Your task to perform on an android device: Is it going to rain tomorrow? Image 0: 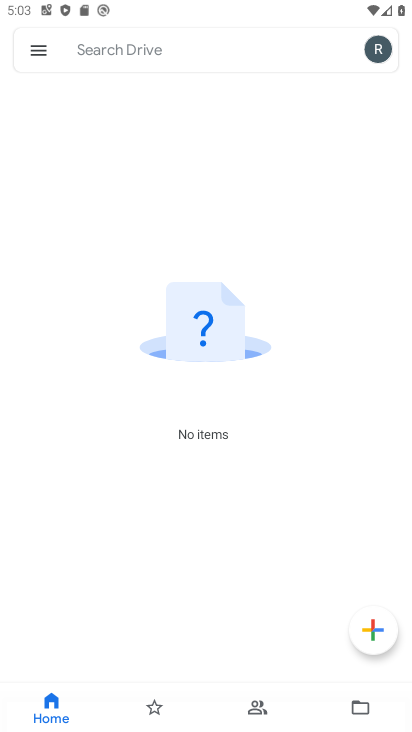
Step 0: press home button
Your task to perform on an android device: Is it going to rain tomorrow? Image 1: 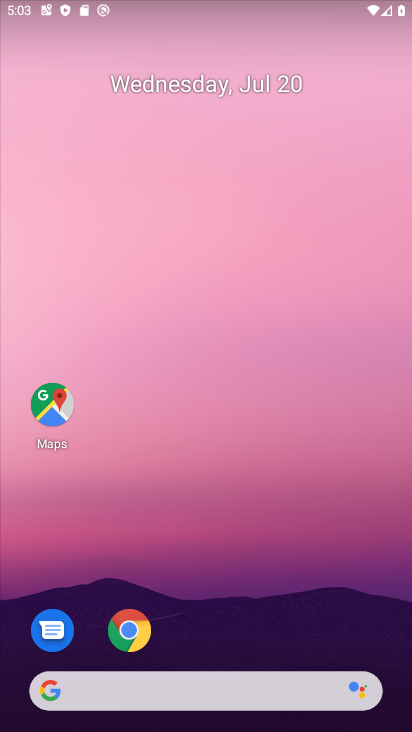
Step 1: drag from (227, 584) to (326, 50)
Your task to perform on an android device: Is it going to rain tomorrow? Image 2: 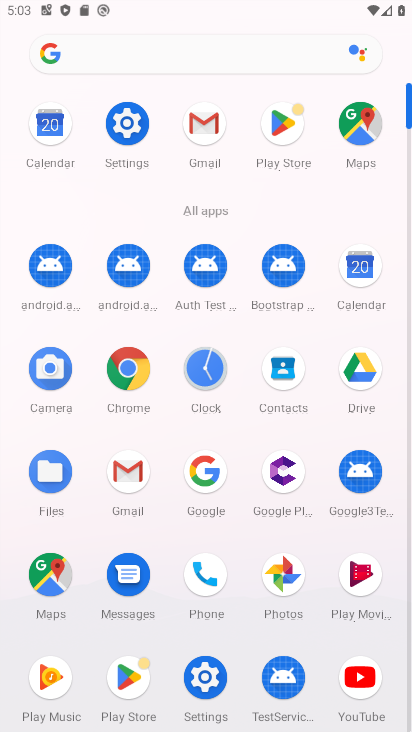
Step 2: click (134, 376)
Your task to perform on an android device: Is it going to rain tomorrow? Image 3: 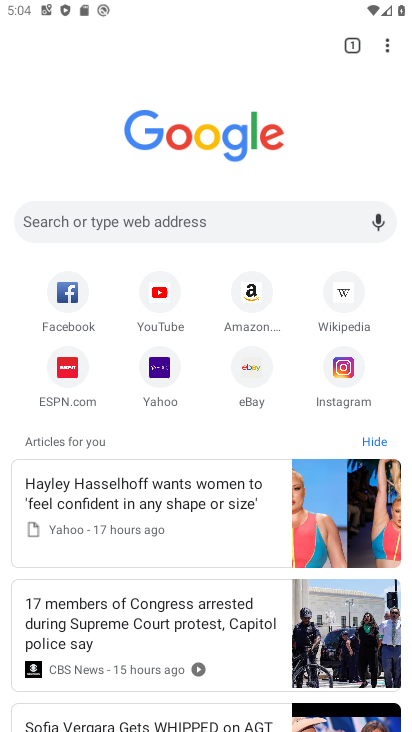
Step 3: type "is "
Your task to perform on an android device: Is it going to rain tomorrow? Image 4: 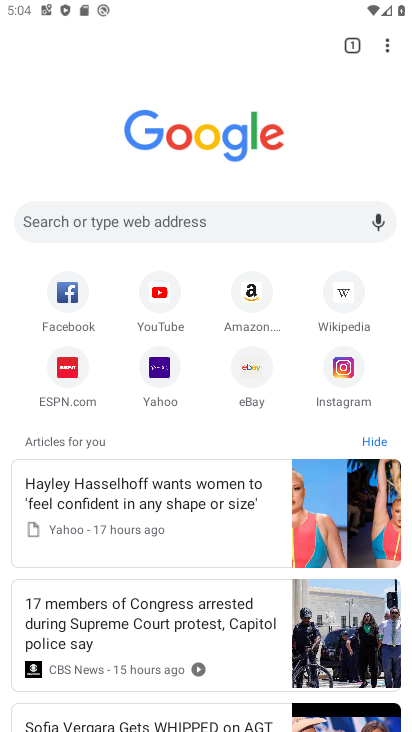
Step 4: click (250, 226)
Your task to perform on an android device: Is it going to rain tomorrow? Image 5: 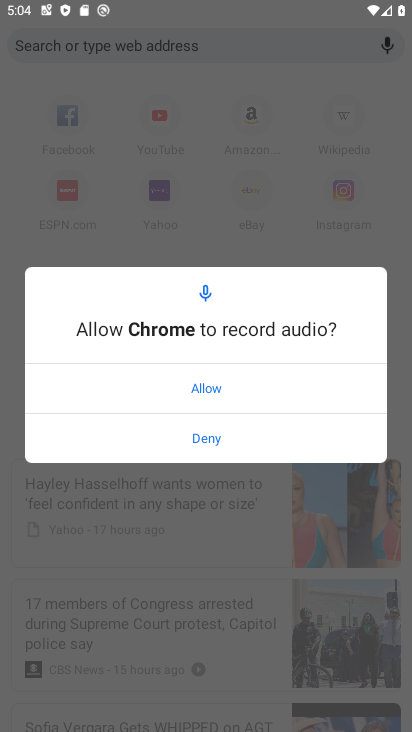
Step 5: click (214, 436)
Your task to perform on an android device: Is it going to rain tomorrow? Image 6: 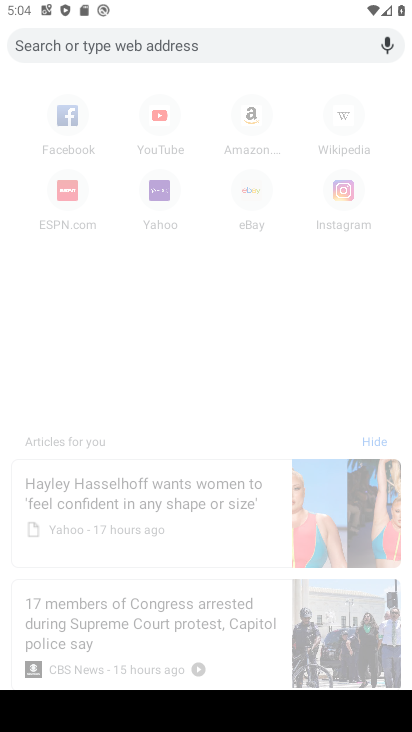
Step 6: type "going to rain tomorrow"
Your task to perform on an android device: Is it going to rain tomorrow? Image 7: 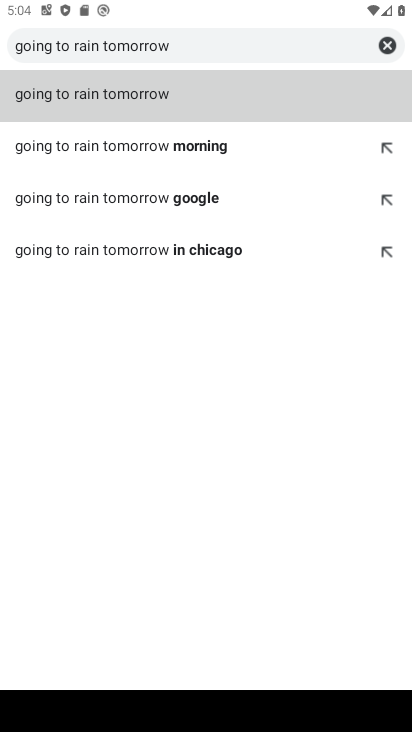
Step 7: click (194, 101)
Your task to perform on an android device: Is it going to rain tomorrow? Image 8: 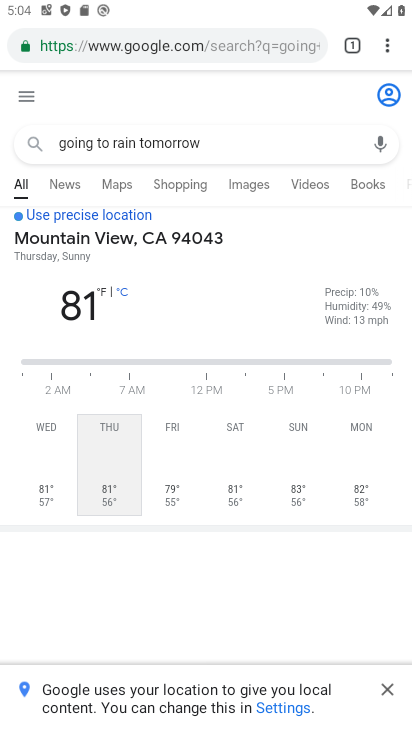
Step 8: task complete